Your task to perform on an android device: Open Chrome and go to settings Image 0: 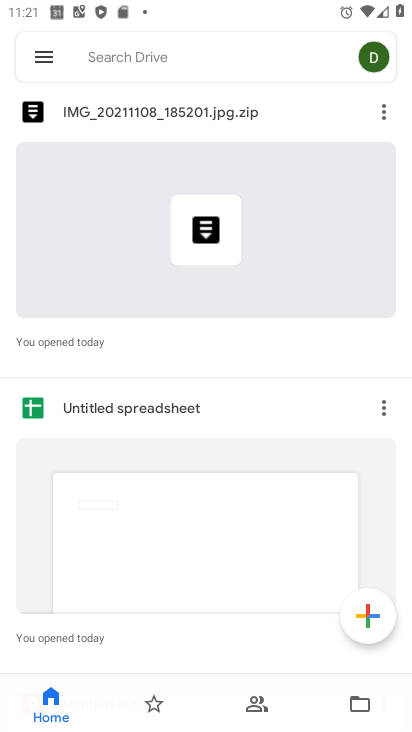
Step 0: press home button
Your task to perform on an android device: Open Chrome and go to settings Image 1: 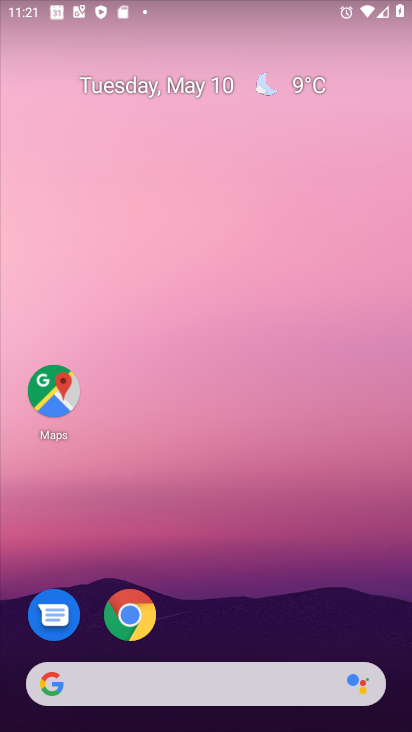
Step 1: click (131, 611)
Your task to perform on an android device: Open Chrome and go to settings Image 2: 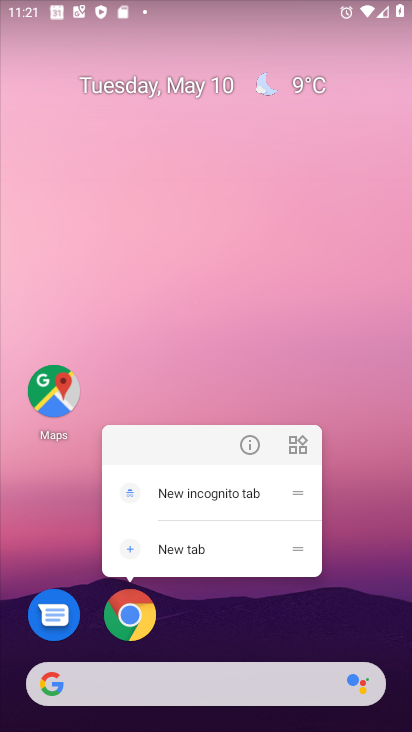
Step 2: click (192, 631)
Your task to perform on an android device: Open Chrome and go to settings Image 3: 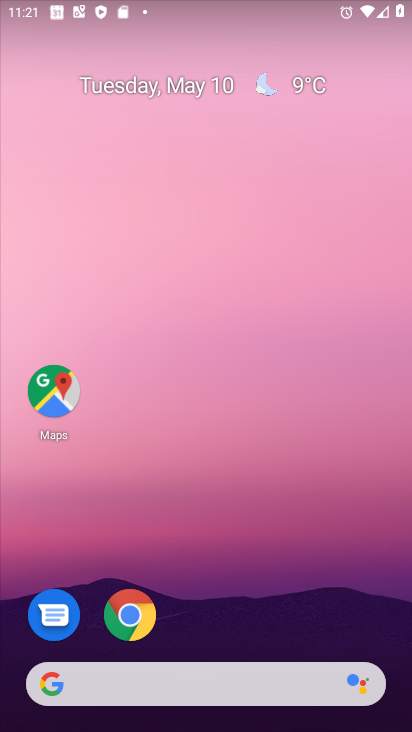
Step 3: click (125, 608)
Your task to perform on an android device: Open Chrome and go to settings Image 4: 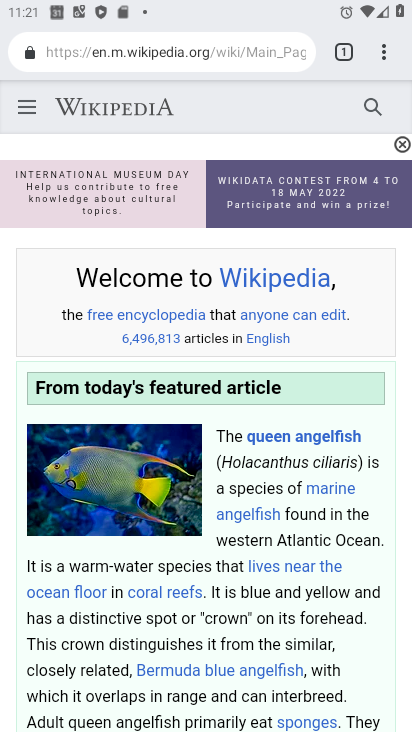
Step 4: click (384, 44)
Your task to perform on an android device: Open Chrome and go to settings Image 5: 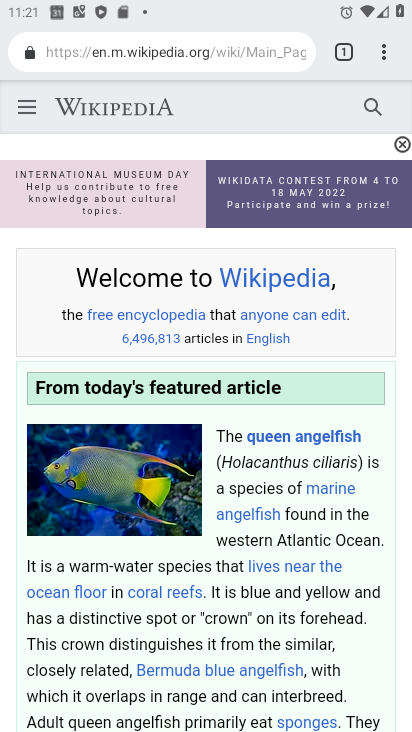
Step 5: click (383, 48)
Your task to perform on an android device: Open Chrome and go to settings Image 6: 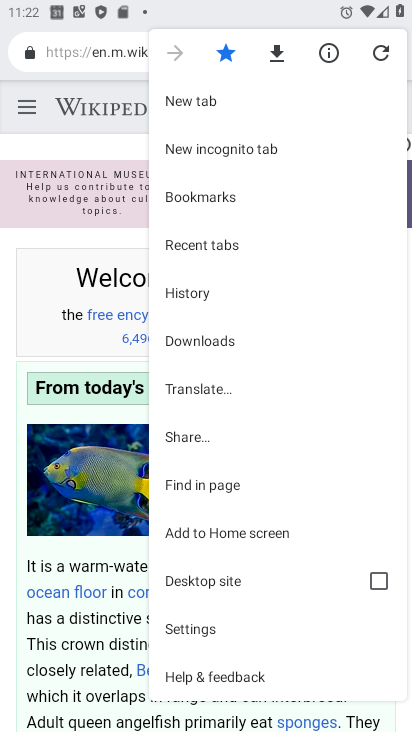
Step 6: click (220, 624)
Your task to perform on an android device: Open Chrome and go to settings Image 7: 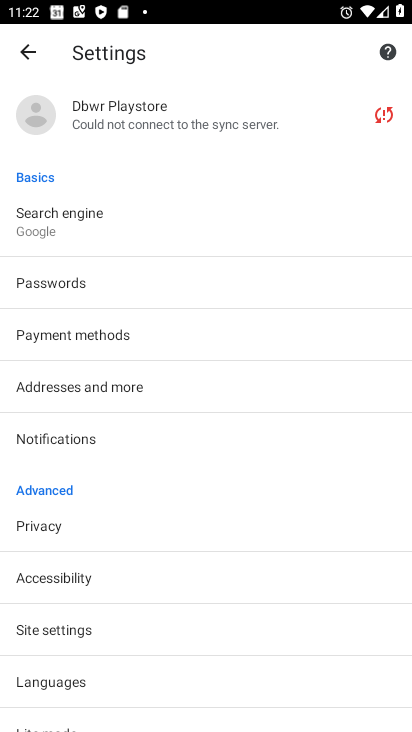
Step 7: task complete